Your task to perform on an android device: create a new album in the google photos Image 0: 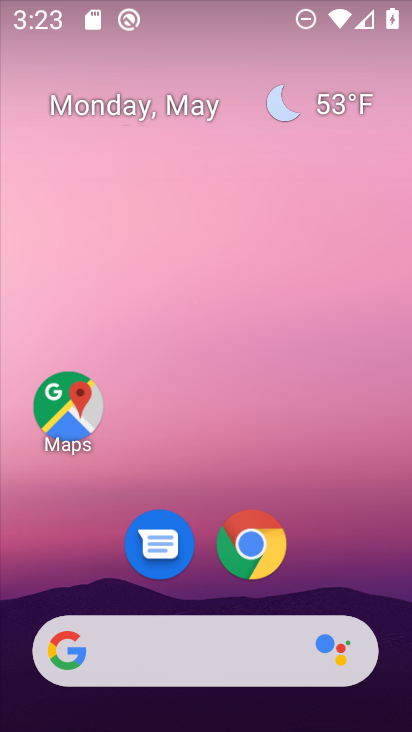
Step 0: drag from (173, 720) to (124, 31)
Your task to perform on an android device: create a new album in the google photos Image 1: 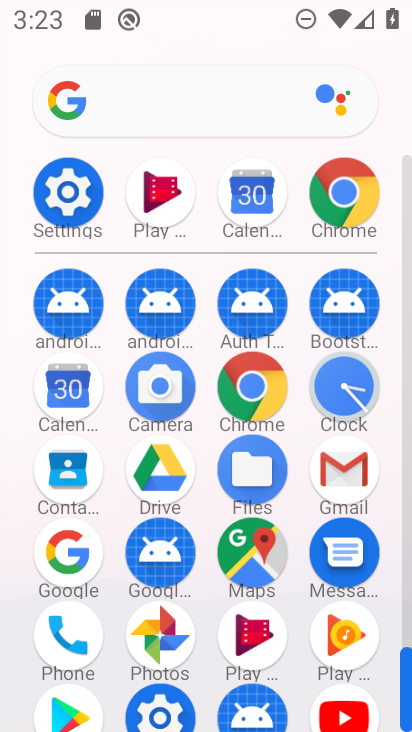
Step 1: click (164, 649)
Your task to perform on an android device: create a new album in the google photos Image 2: 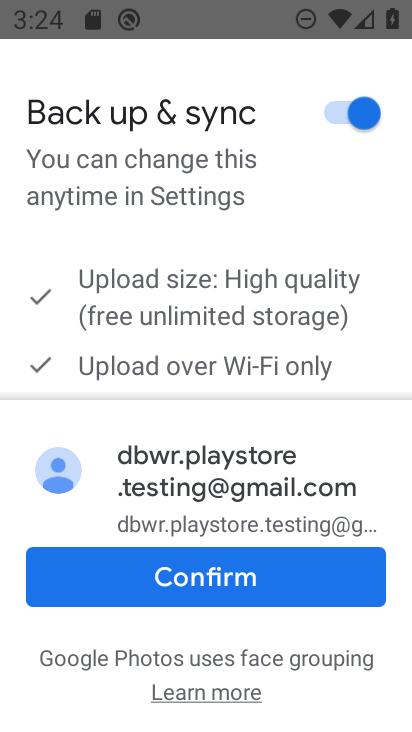
Step 2: click (275, 582)
Your task to perform on an android device: create a new album in the google photos Image 3: 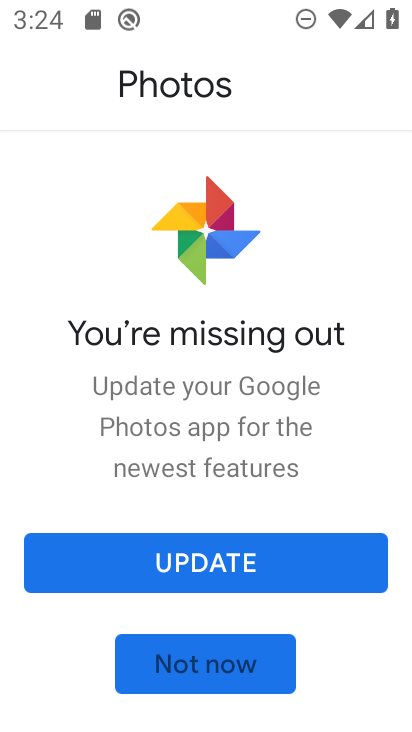
Step 3: click (239, 678)
Your task to perform on an android device: create a new album in the google photos Image 4: 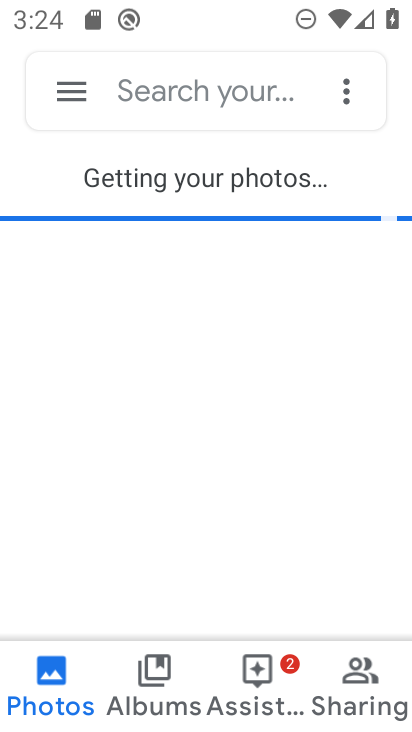
Step 4: click (394, 98)
Your task to perform on an android device: create a new album in the google photos Image 5: 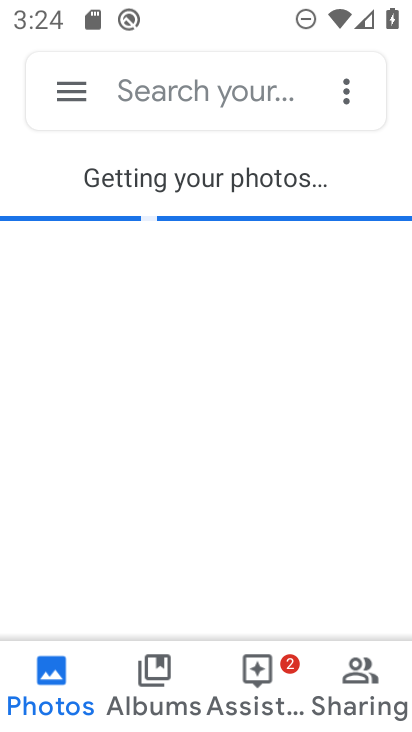
Step 5: click (345, 94)
Your task to perform on an android device: create a new album in the google photos Image 6: 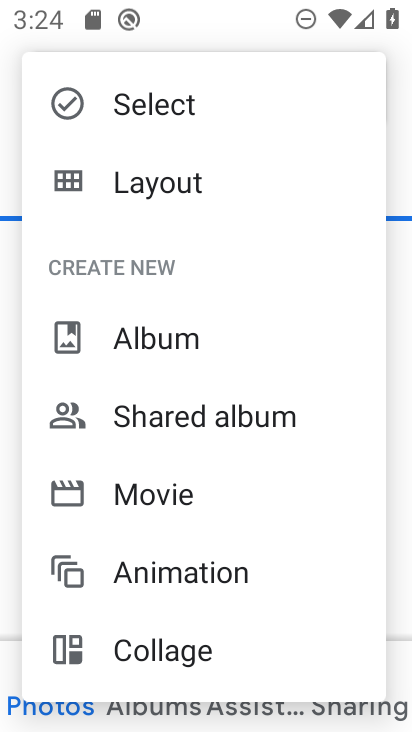
Step 6: click (160, 338)
Your task to perform on an android device: create a new album in the google photos Image 7: 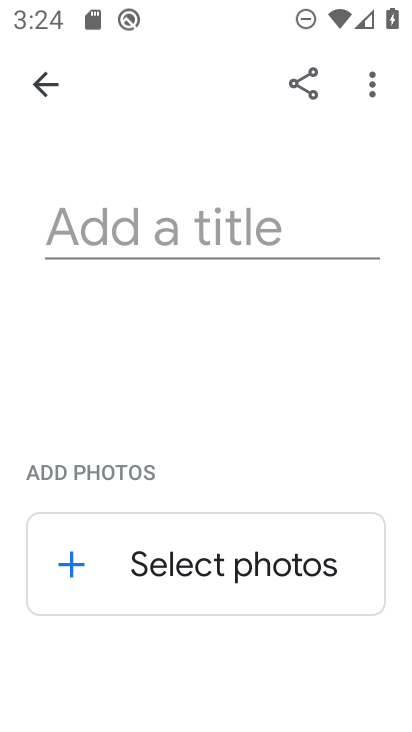
Step 7: click (192, 249)
Your task to perform on an android device: create a new album in the google photos Image 8: 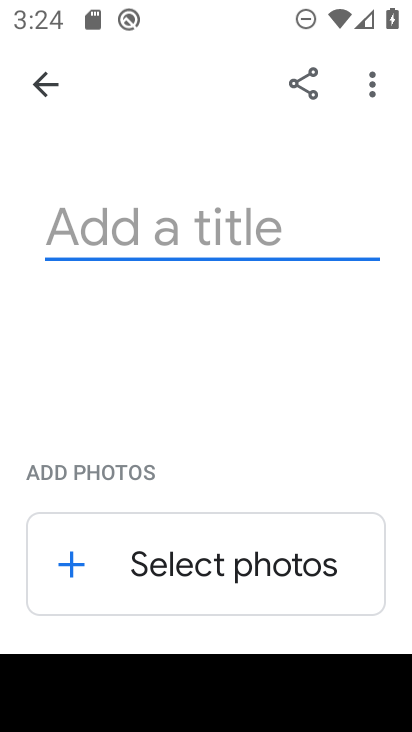
Step 8: type "ASBH"
Your task to perform on an android device: create a new album in the google photos Image 9: 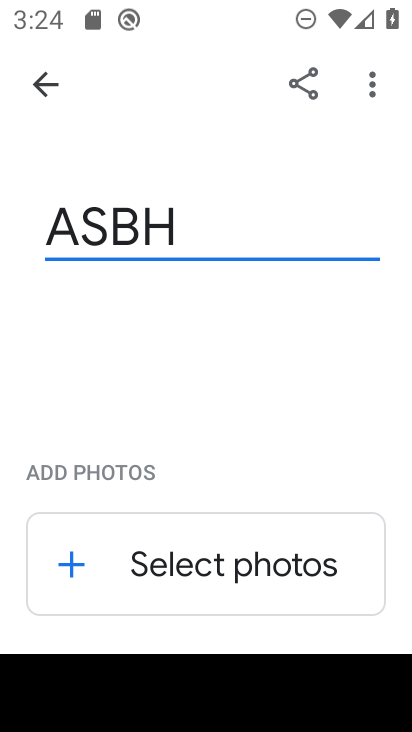
Step 9: click (221, 577)
Your task to perform on an android device: create a new album in the google photos Image 10: 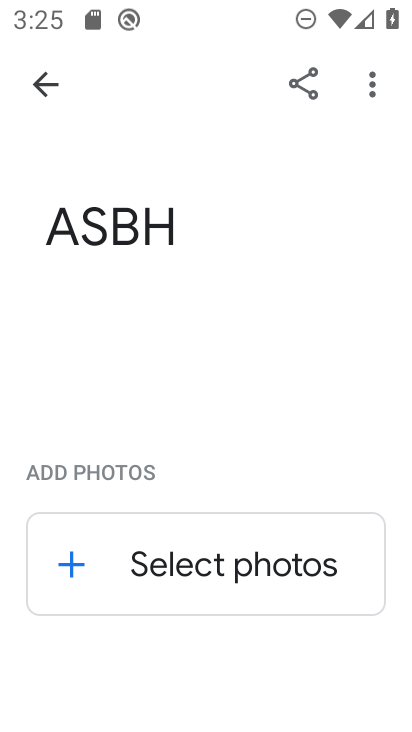
Step 10: click (312, 571)
Your task to perform on an android device: create a new album in the google photos Image 11: 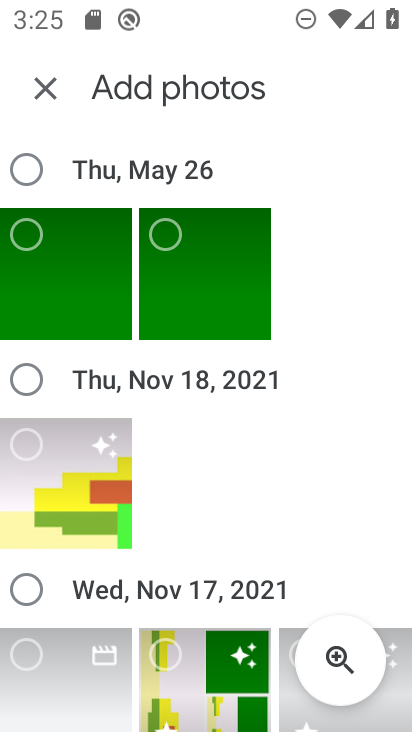
Step 11: click (22, 239)
Your task to perform on an android device: create a new album in the google photos Image 12: 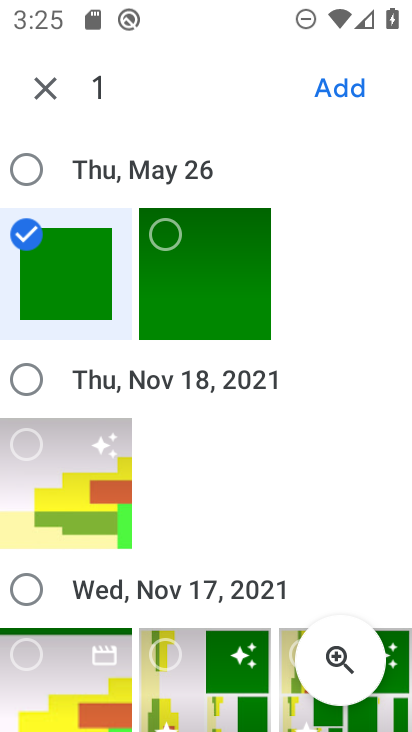
Step 12: click (176, 239)
Your task to perform on an android device: create a new album in the google photos Image 13: 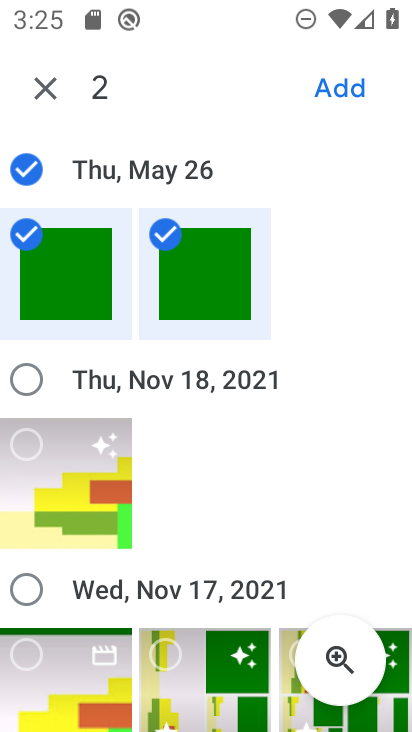
Step 13: click (324, 80)
Your task to perform on an android device: create a new album in the google photos Image 14: 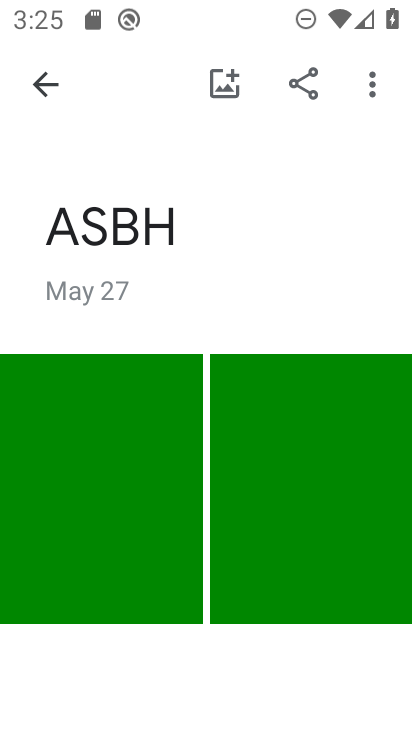
Step 14: task complete